Your task to perform on an android device: Check the weather Image 0: 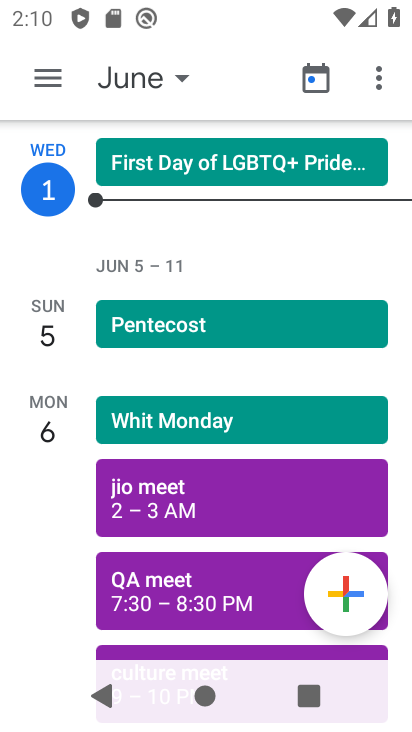
Step 0: press home button
Your task to perform on an android device: Check the weather Image 1: 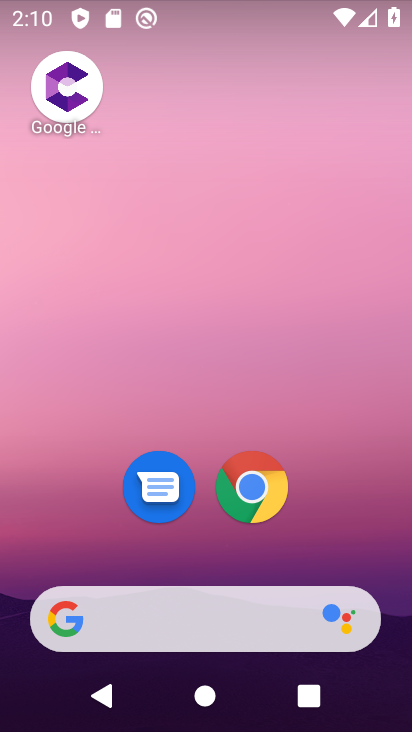
Step 1: click (202, 632)
Your task to perform on an android device: Check the weather Image 2: 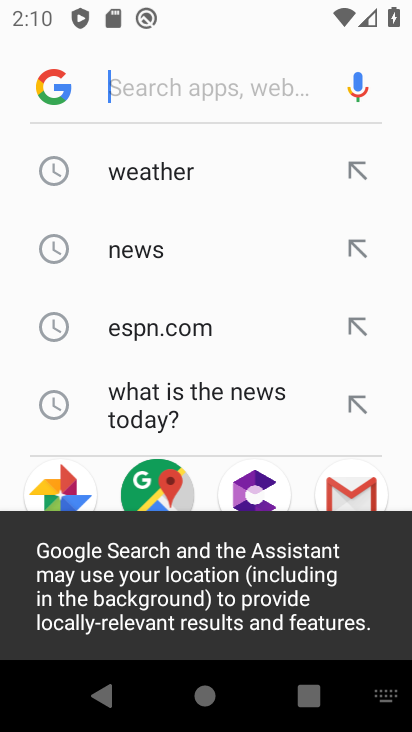
Step 2: click (191, 161)
Your task to perform on an android device: Check the weather Image 3: 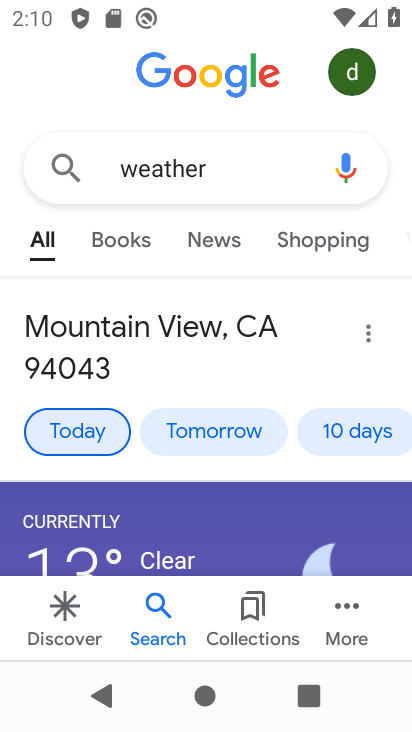
Step 3: task complete